Your task to perform on an android device: Open Maps and search for coffee Image 0: 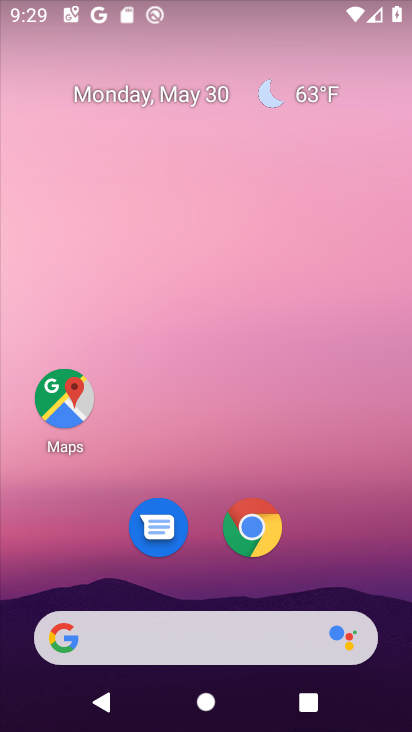
Step 0: click (44, 397)
Your task to perform on an android device: Open Maps and search for coffee Image 1: 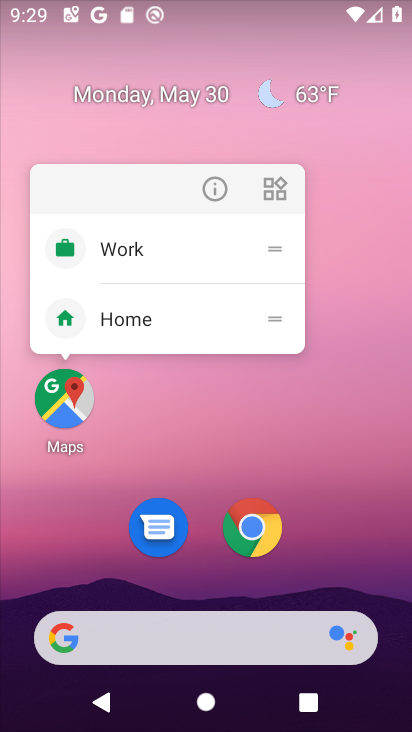
Step 1: click (55, 391)
Your task to perform on an android device: Open Maps and search for coffee Image 2: 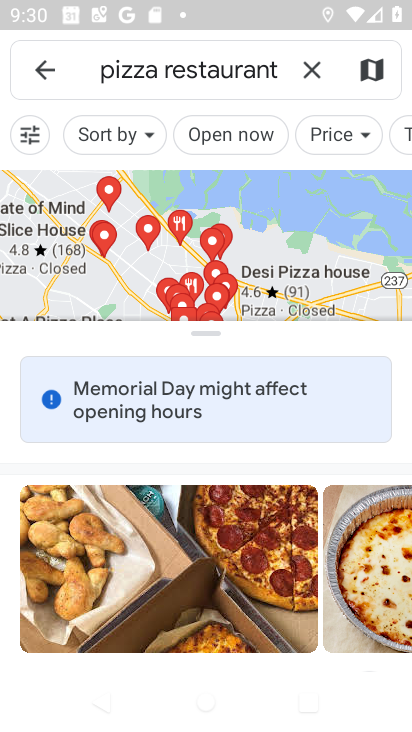
Step 2: click (316, 55)
Your task to perform on an android device: Open Maps and search for coffee Image 3: 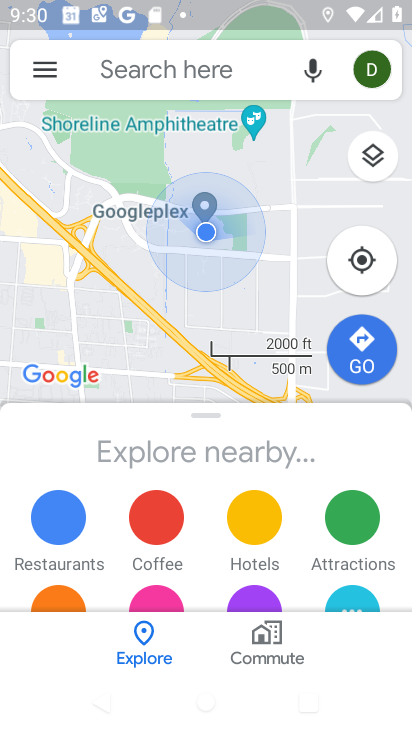
Step 3: click (201, 62)
Your task to perform on an android device: Open Maps and search for coffee Image 4: 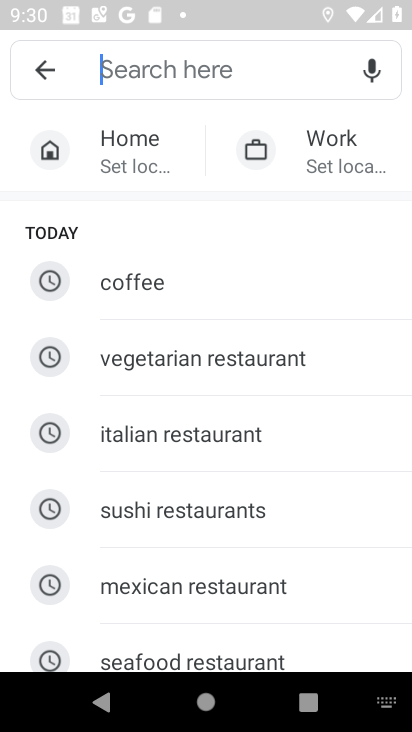
Step 4: click (148, 261)
Your task to perform on an android device: Open Maps and search for coffee Image 5: 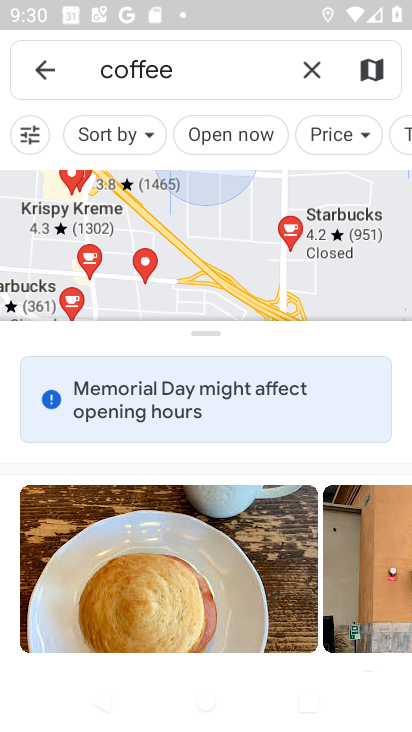
Step 5: task complete